Your task to perform on an android device: What's the weather? Image 0: 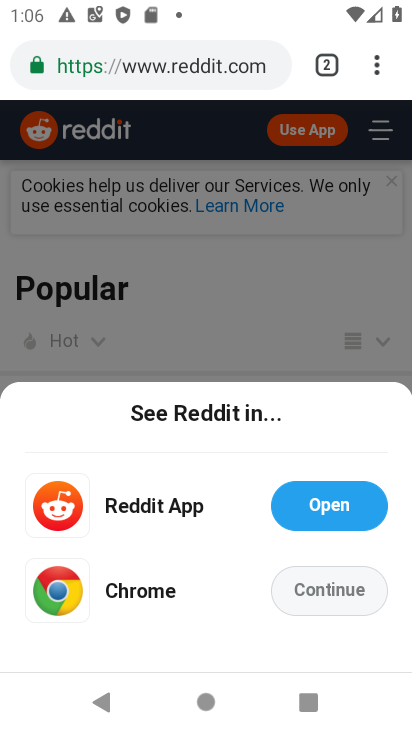
Step 0: press home button
Your task to perform on an android device: What's the weather? Image 1: 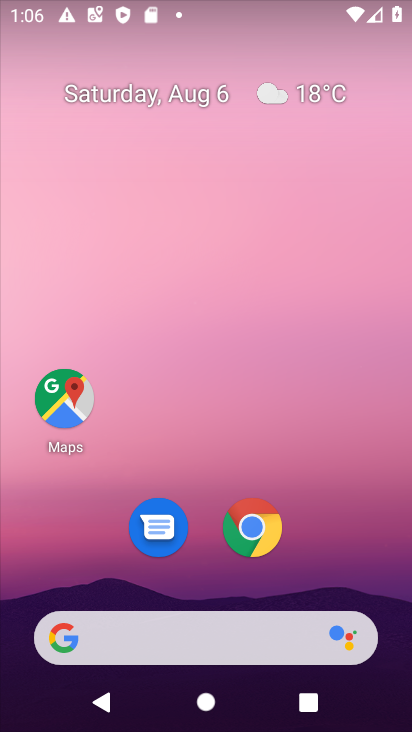
Step 1: drag from (237, 474) to (249, 107)
Your task to perform on an android device: What's the weather? Image 2: 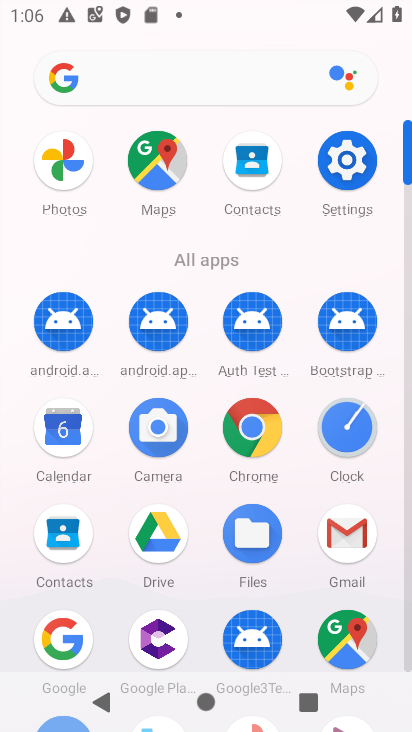
Step 2: click (271, 434)
Your task to perform on an android device: What's the weather? Image 3: 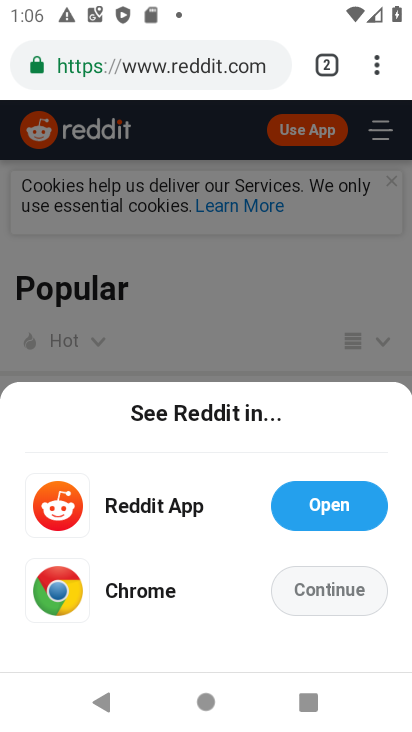
Step 3: click (325, 65)
Your task to perform on an android device: What's the weather? Image 4: 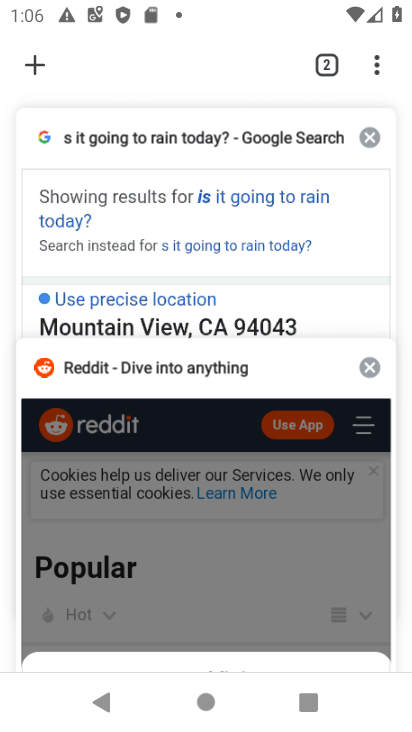
Step 4: click (127, 173)
Your task to perform on an android device: What's the weather? Image 5: 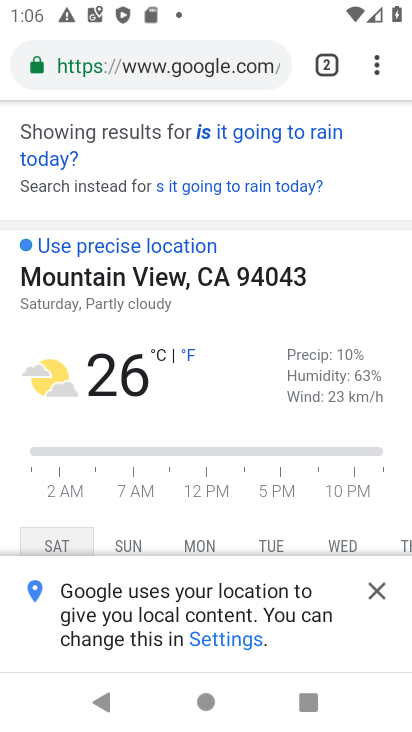
Step 5: click (374, 592)
Your task to perform on an android device: What's the weather? Image 6: 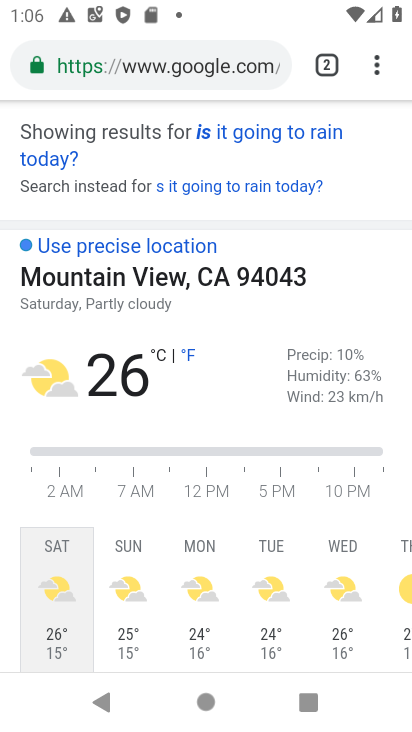
Step 6: task complete